Your task to perform on an android device: find which apps use the phone's location Image 0: 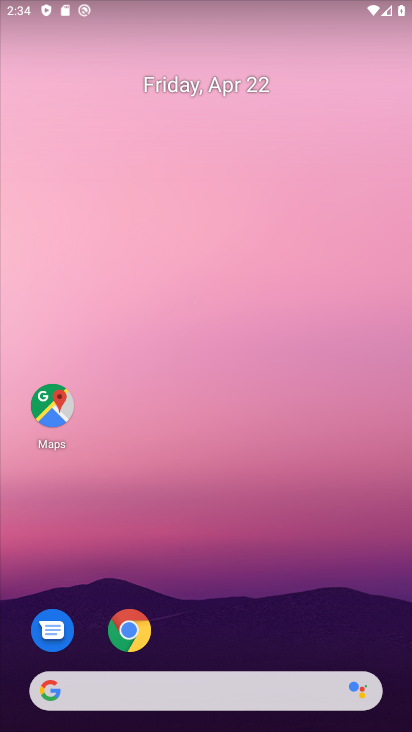
Step 0: drag from (383, 588) to (359, 157)
Your task to perform on an android device: find which apps use the phone's location Image 1: 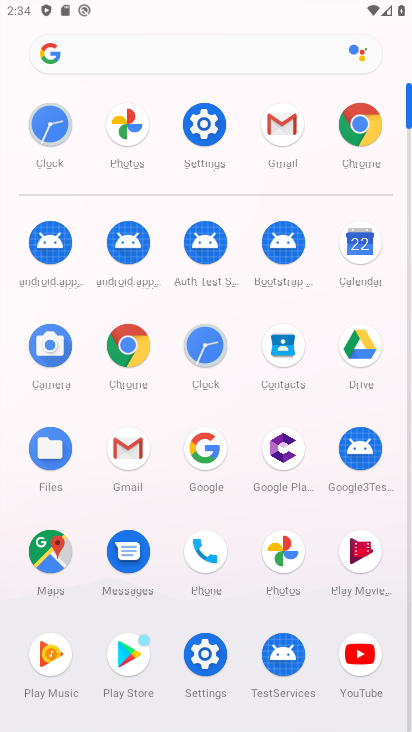
Step 1: click (198, 125)
Your task to perform on an android device: find which apps use the phone's location Image 2: 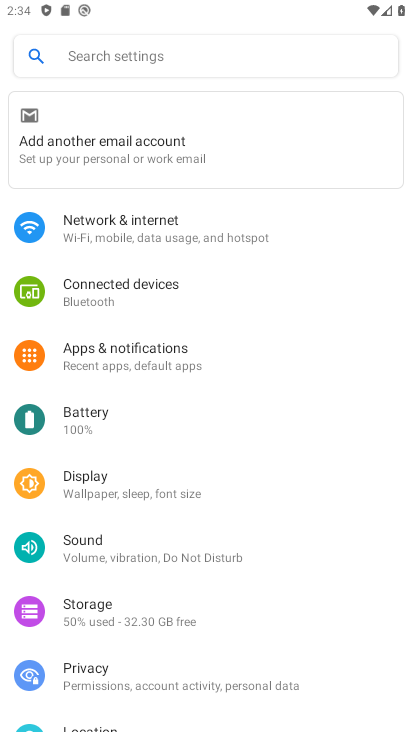
Step 2: drag from (231, 615) to (270, 383)
Your task to perform on an android device: find which apps use the phone's location Image 3: 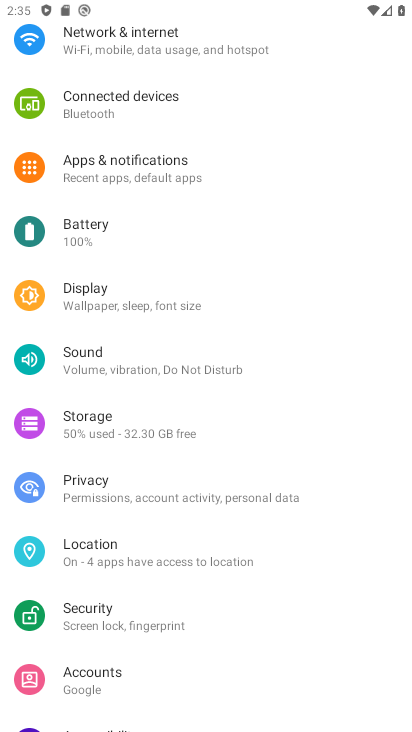
Step 3: click (93, 551)
Your task to perform on an android device: find which apps use the phone's location Image 4: 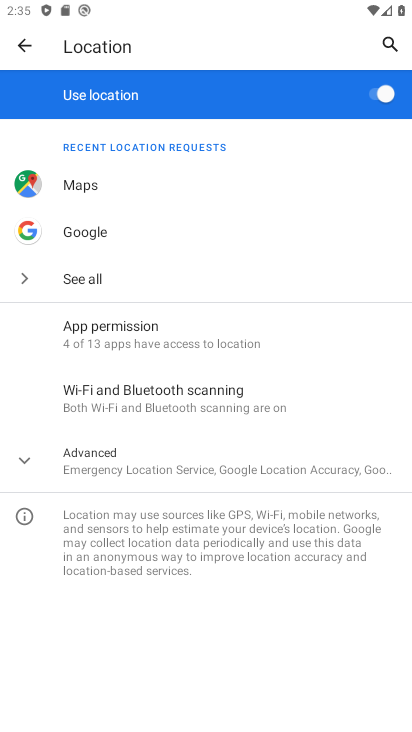
Step 4: task complete